Your task to perform on an android device: Open calendar and show me the fourth week of next month Image 0: 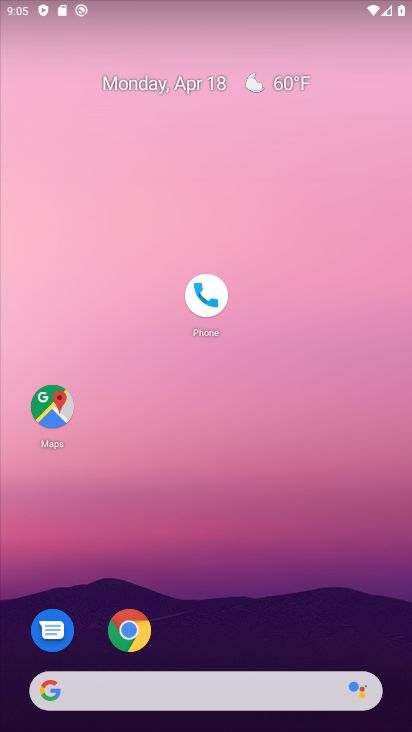
Step 0: drag from (355, 584) to (335, 148)
Your task to perform on an android device: Open calendar and show me the fourth week of next month Image 1: 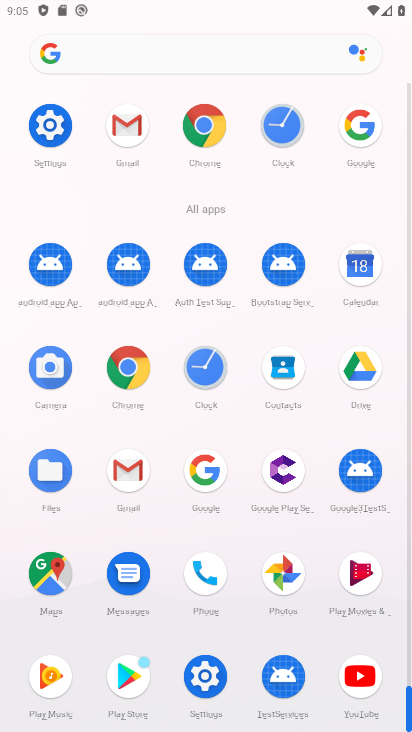
Step 1: click (371, 263)
Your task to perform on an android device: Open calendar and show me the fourth week of next month Image 2: 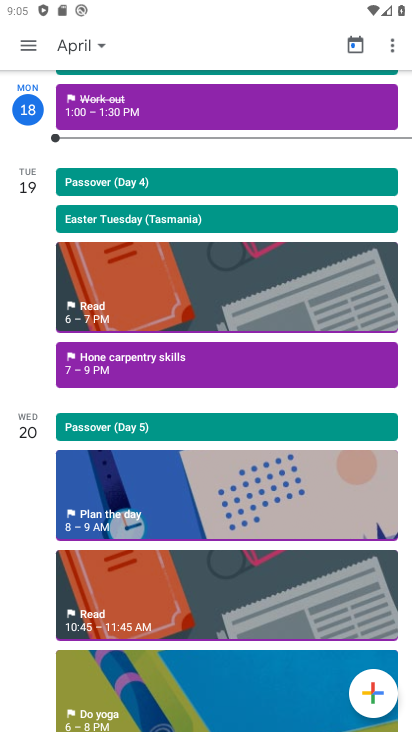
Step 2: click (83, 37)
Your task to perform on an android device: Open calendar and show me the fourth week of next month Image 3: 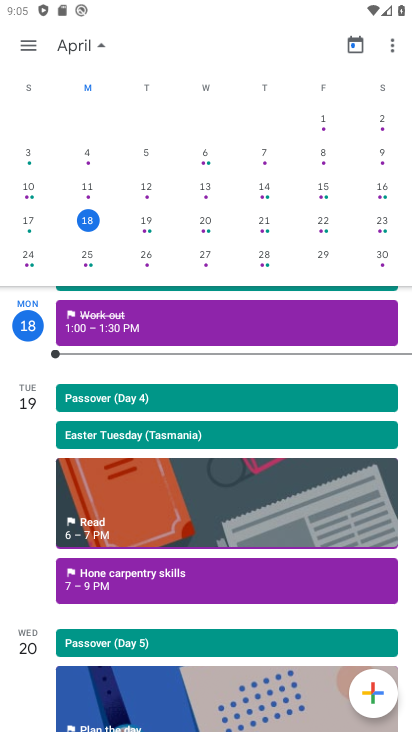
Step 3: drag from (355, 169) to (95, 172)
Your task to perform on an android device: Open calendar and show me the fourth week of next month Image 4: 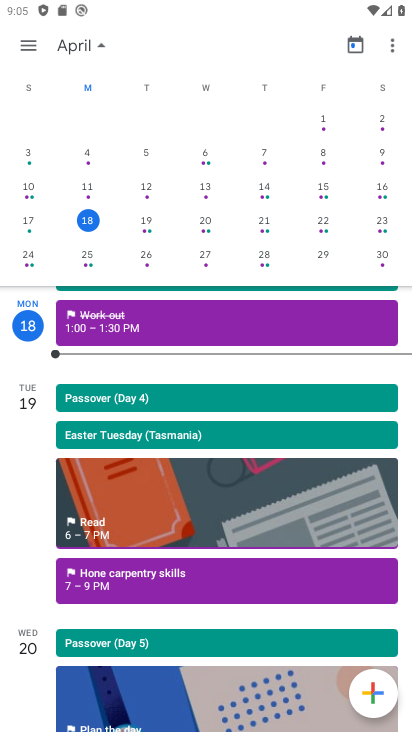
Step 4: drag from (350, 194) to (73, 183)
Your task to perform on an android device: Open calendar and show me the fourth week of next month Image 5: 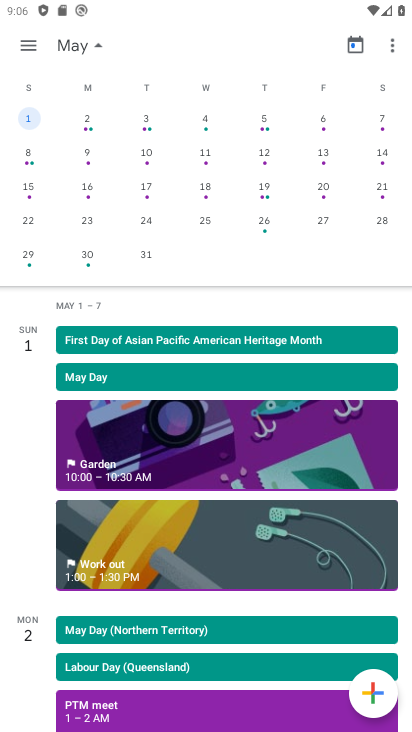
Step 5: click (146, 224)
Your task to perform on an android device: Open calendar and show me the fourth week of next month Image 6: 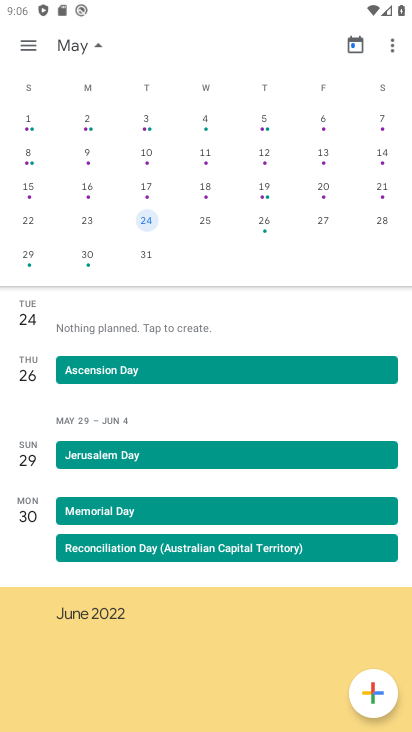
Step 6: task complete